Your task to perform on an android device: turn off smart reply in the gmail app Image 0: 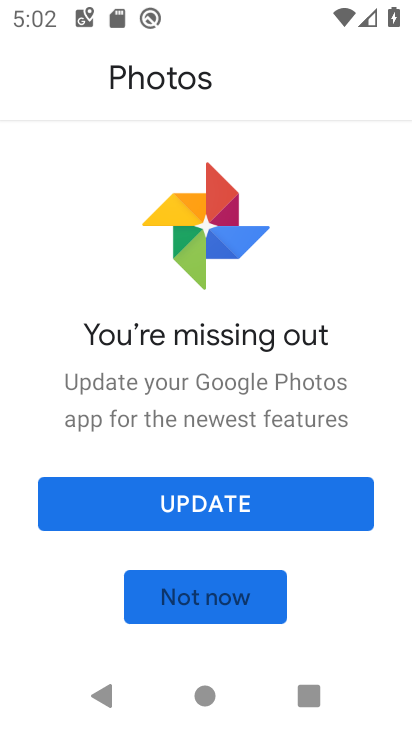
Step 0: press home button
Your task to perform on an android device: turn off smart reply in the gmail app Image 1: 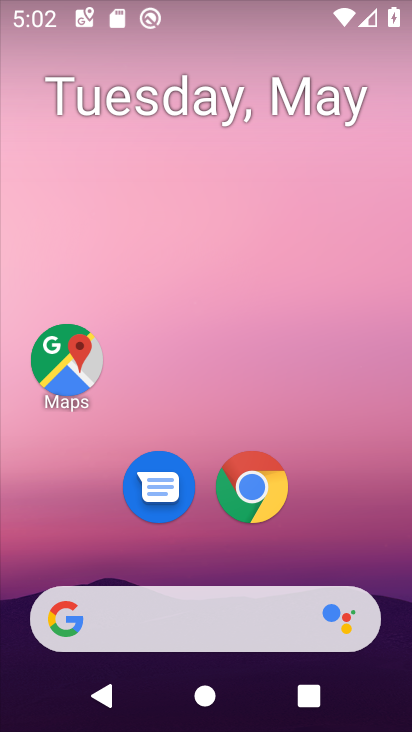
Step 1: drag from (334, 489) to (339, 175)
Your task to perform on an android device: turn off smart reply in the gmail app Image 2: 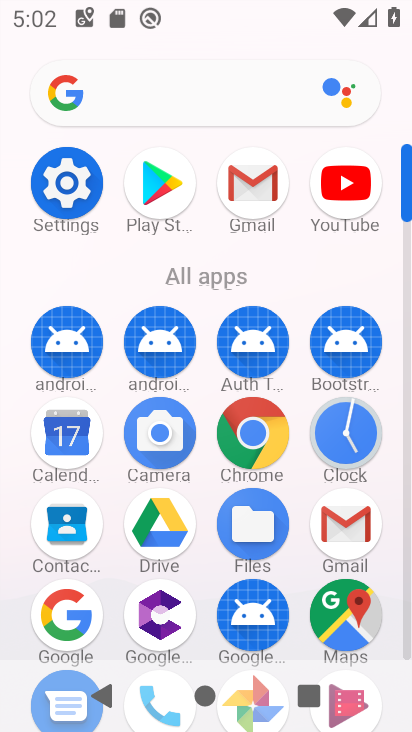
Step 2: click (262, 188)
Your task to perform on an android device: turn off smart reply in the gmail app Image 3: 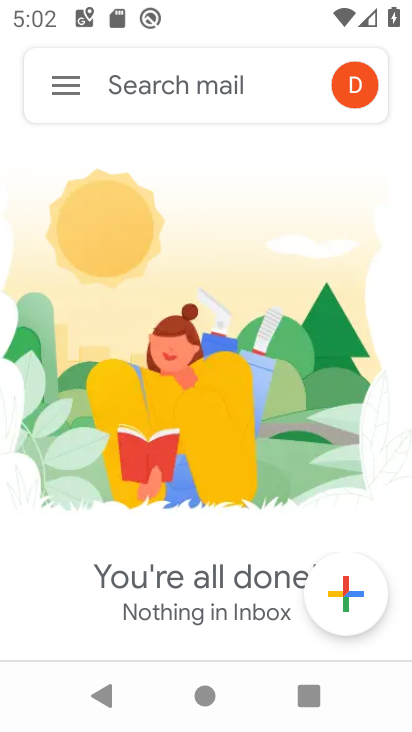
Step 3: click (73, 98)
Your task to perform on an android device: turn off smart reply in the gmail app Image 4: 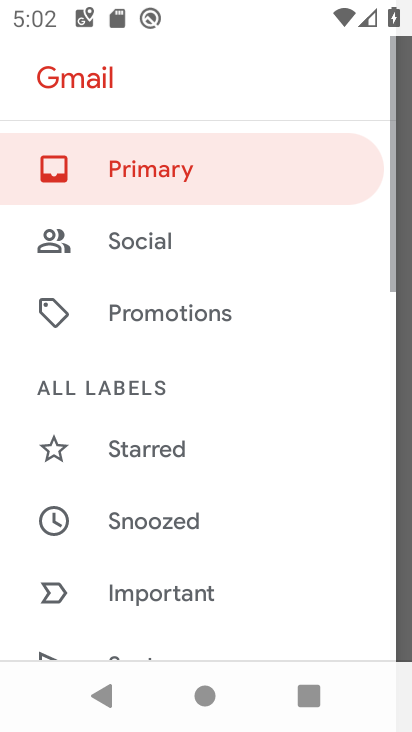
Step 4: drag from (125, 605) to (186, 122)
Your task to perform on an android device: turn off smart reply in the gmail app Image 5: 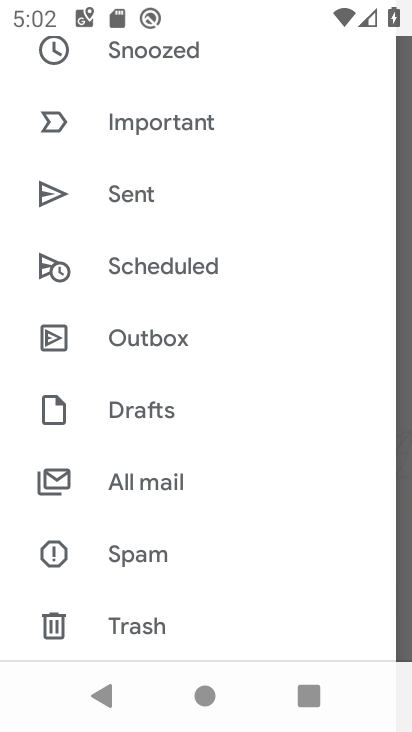
Step 5: drag from (189, 606) to (248, 344)
Your task to perform on an android device: turn off smart reply in the gmail app Image 6: 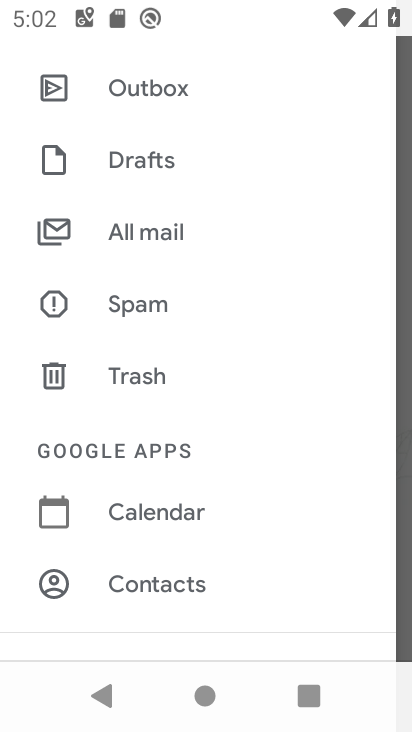
Step 6: drag from (206, 623) to (217, 236)
Your task to perform on an android device: turn off smart reply in the gmail app Image 7: 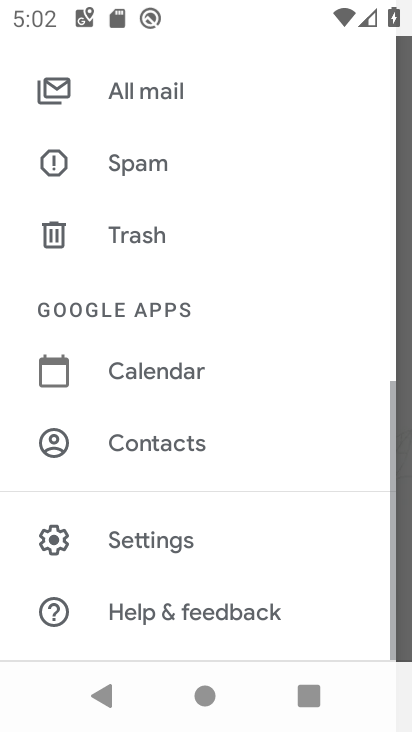
Step 7: click (193, 527)
Your task to perform on an android device: turn off smart reply in the gmail app Image 8: 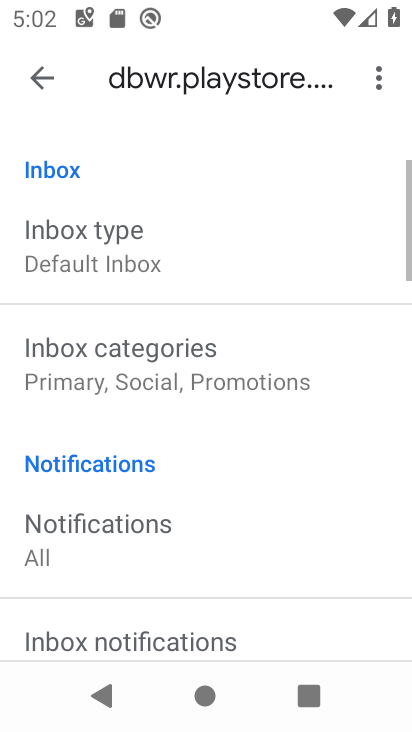
Step 8: drag from (183, 525) to (206, 240)
Your task to perform on an android device: turn off smart reply in the gmail app Image 9: 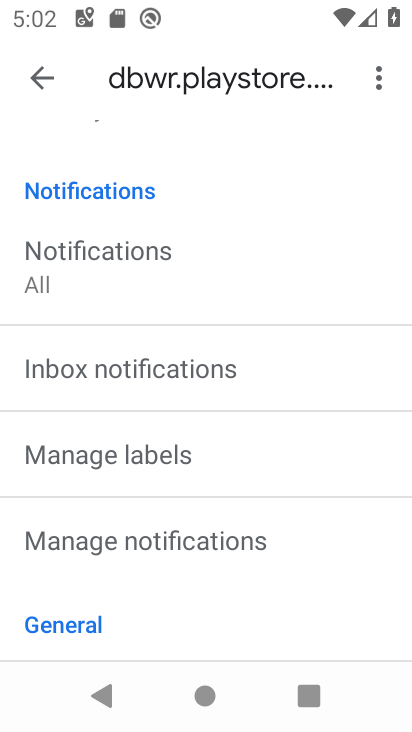
Step 9: drag from (210, 556) to (229, 237)
Your task to perform on an android device: turn off smart reply in the gmail app Image 10: 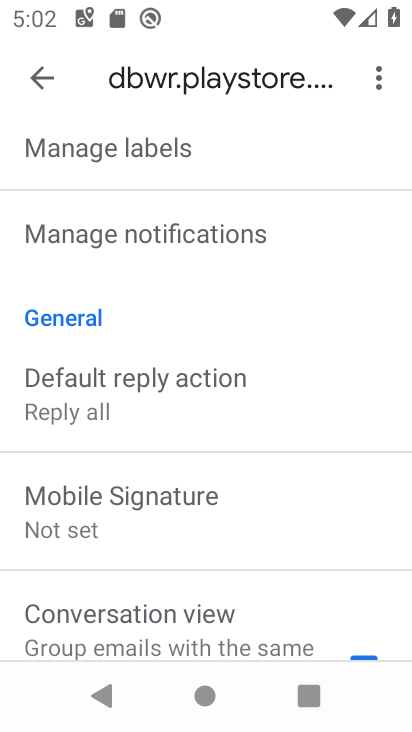
Step 10: drag from (243, 536) to (258, 188)
Your task to perform on an android device: turn off smart reply in the gmail app Image 11: 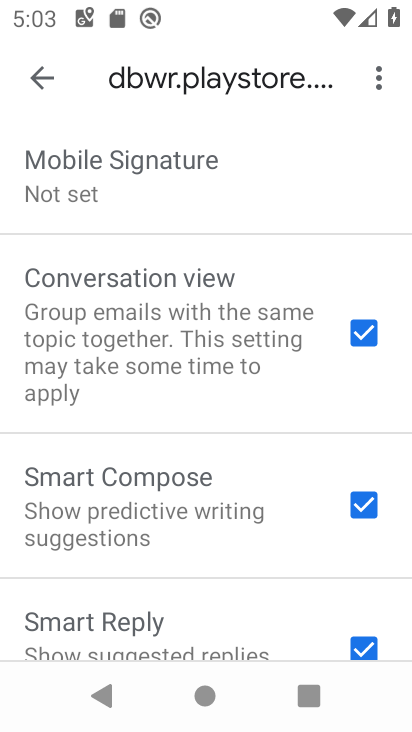
Step 11: click (364, 631)
Your task to perform on an android device: turn off smart reply in the gmail app Image 12: 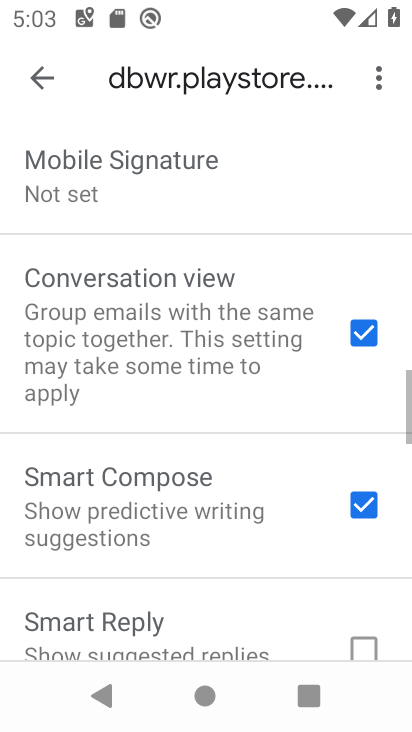
Step 12: task complete